Your task to perform on an android device: visit the assistant section in the google photos Image 0: 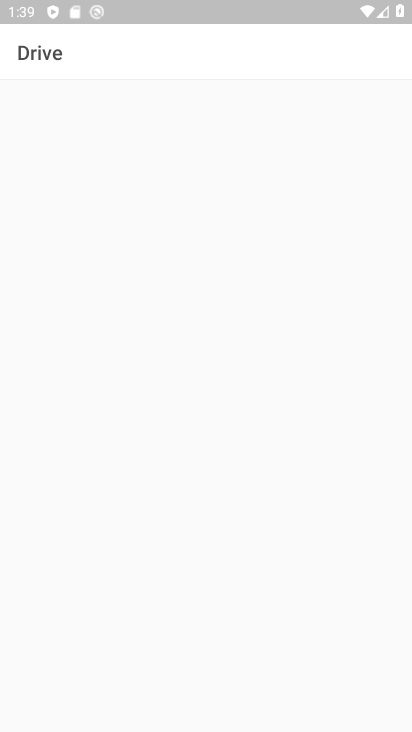
Step 0: press back button
Your task to perform on an android device: visit the assistant section in the google photos Image 1: 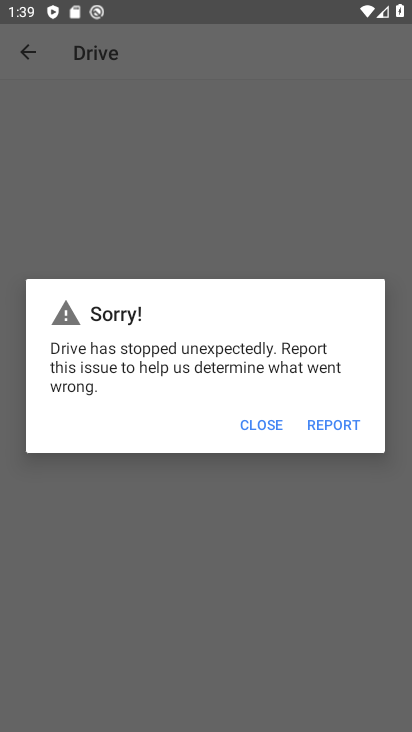
Step 1: click (261, 424)
Your task to perform on an android device: visit the assistant section in the google photos Image 2: 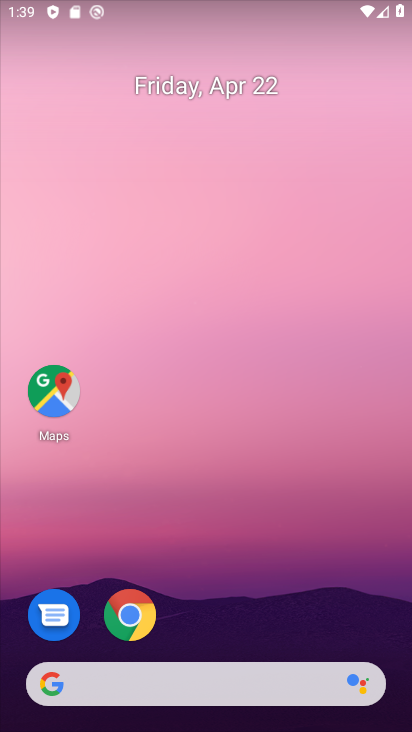
Step 2: drag from (180, 659) to (316, 109)
Your task to perform on an android device: visit the assistant section in the google photos Image 3: 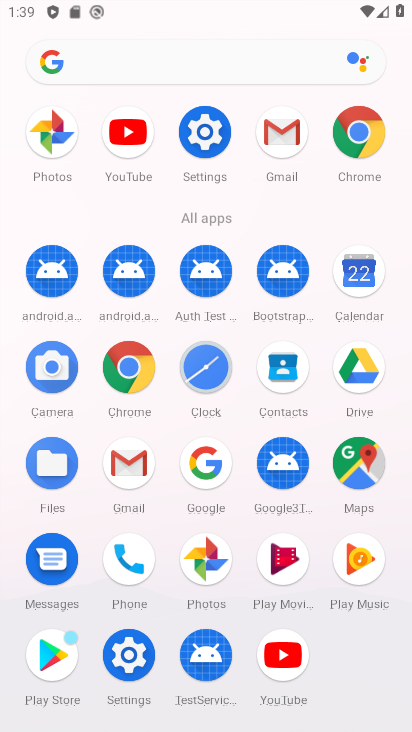
Step 3: drag from (225, 650) to (285, 419)
Your task to perform on an android device: visit the assistant section in the google photos Image 4: 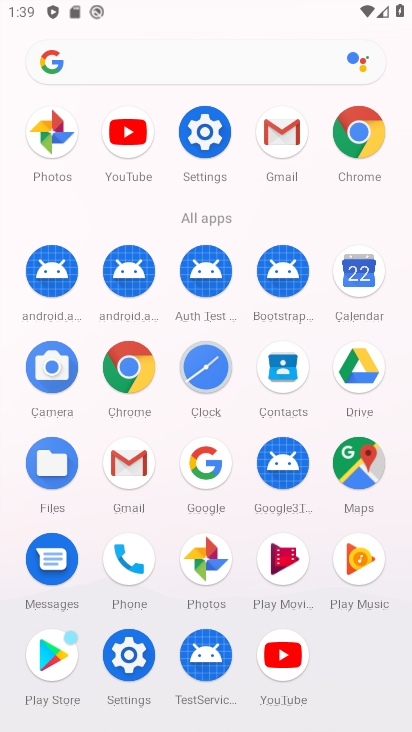
Step 4: click (209, 537)
Your task to perform on an android device: visit the assistant section in the google photos Image 5: 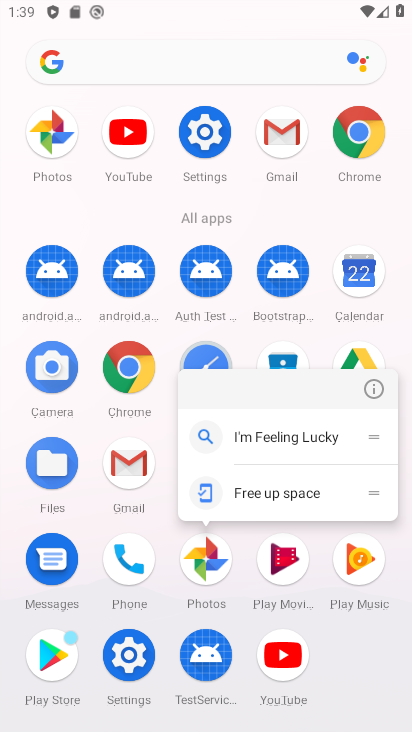
Step 5: click (209, 548)
Your task to perform on an android device: visit the assistant section in the google photos Image 6: 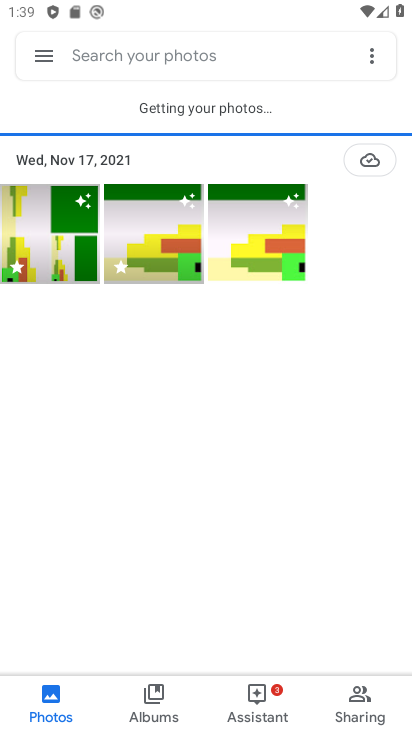
Step 6: click (262, 692)
Your task to perform on an android device: visit the assistant section in the google photos Image 7: 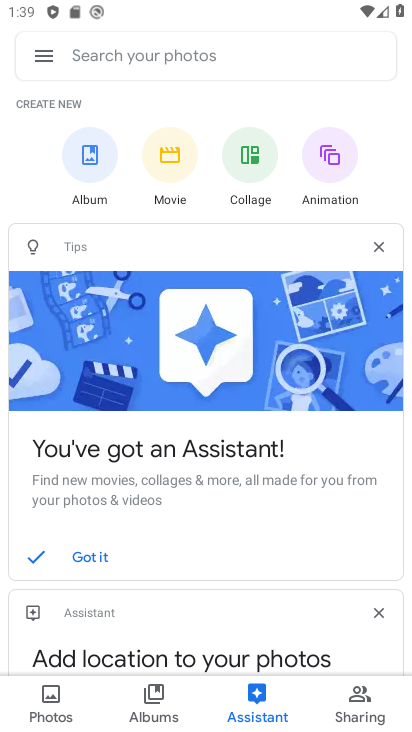
Step 7: task complete